Your task to perform on an android device: change keyboard looks Image 0: 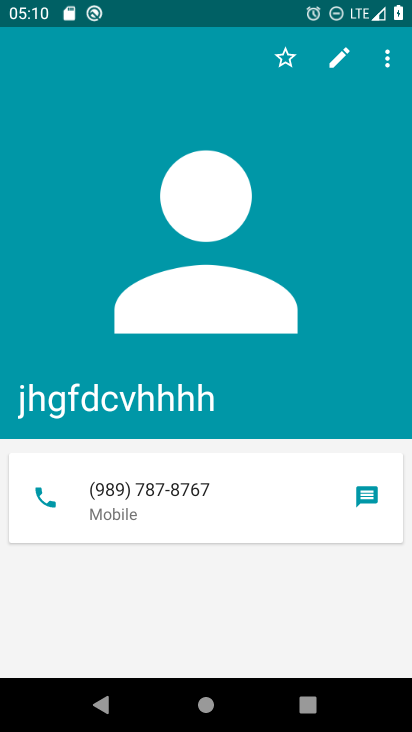
Step 0: press home button
Your task to perform on an android device: change keyboard looks Image 1: 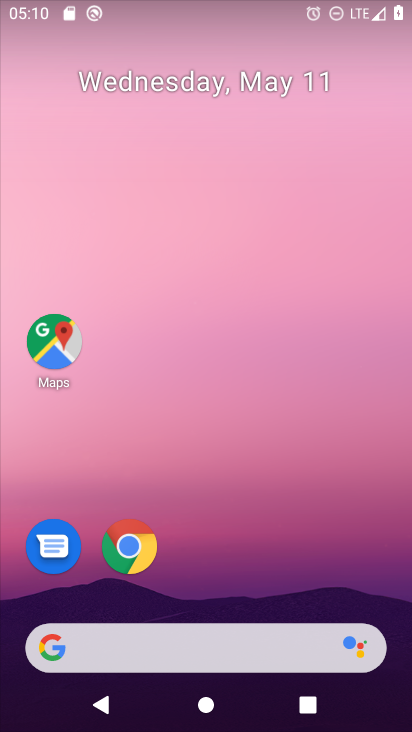
Step 1: drag from (312, 609) to (393, 14)
Your task to perform on an android device: change keyboard looks Image 2: 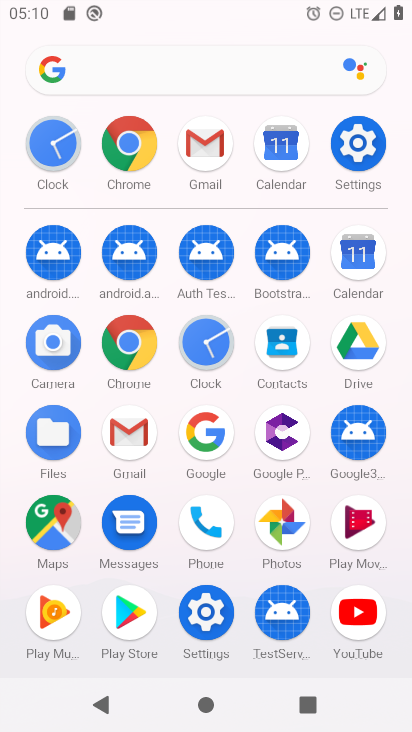
Step 2: click (360, 157)
Your task to perform on an android device: change keyboard looks Image 3: 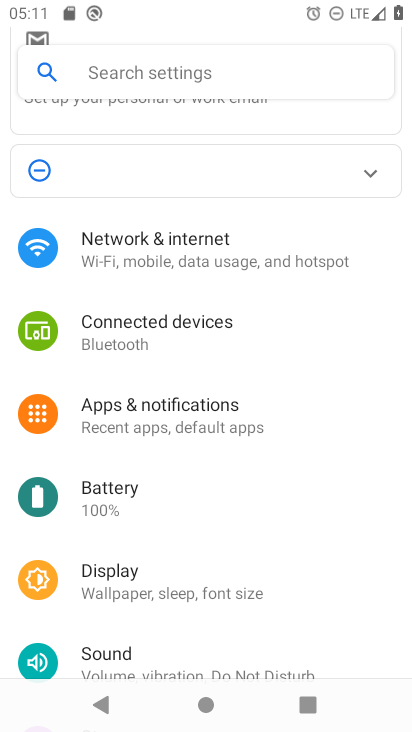
Step 3: drag from (201, 652) to (326, 123)
Your task to perform on an android device: change keyboard looks Image 4: 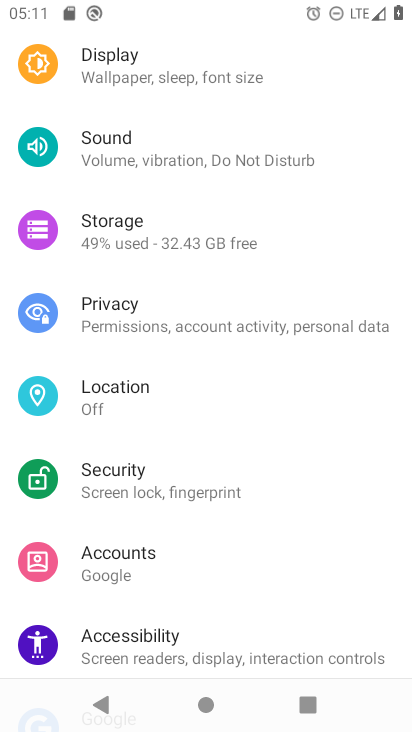
Step 4: drag from (261, 662) to (292, 133)
Your task to perform on an android device: change keyboard looks Image 5: 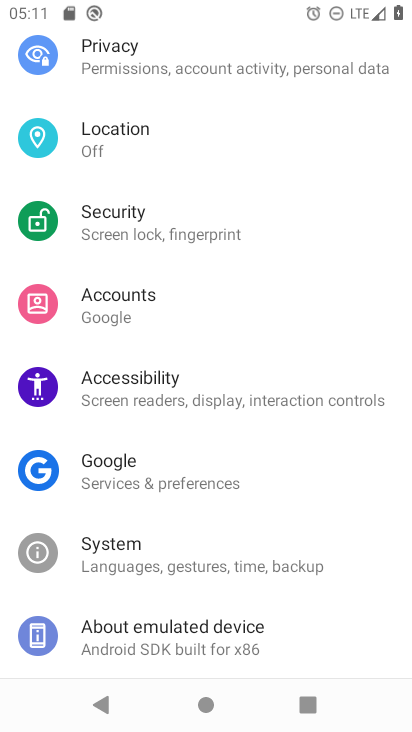
Step 5: click (160, 550)
Your task to perform on an android device: change keyboard looks Image 6: 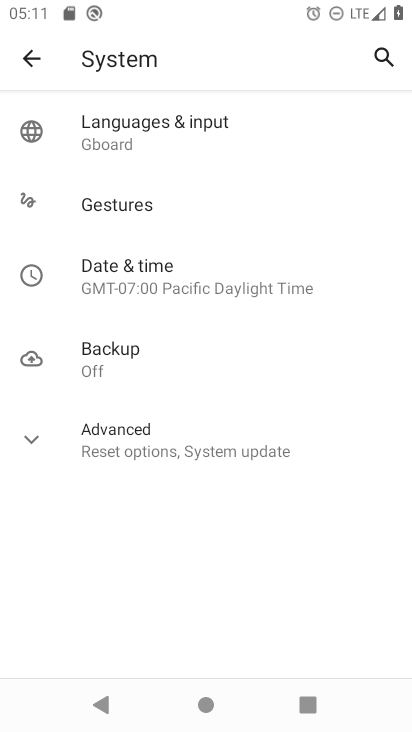
Step 6: click (235, 140)
Your task to perform on an android device: change keyboard looks Image 7: 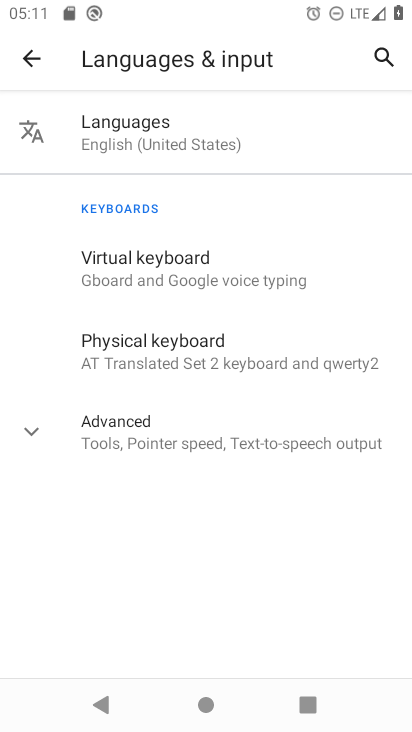
Step 7: click (231, 273)
Your task to perform on an android device: change keyboard looks Image 8: 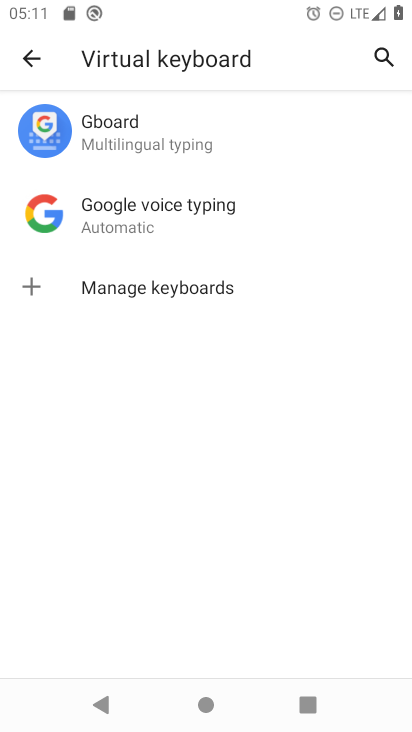
Step 8: click (172, 152)
Your task to perform on an android device: change keyboard looks Image 9: 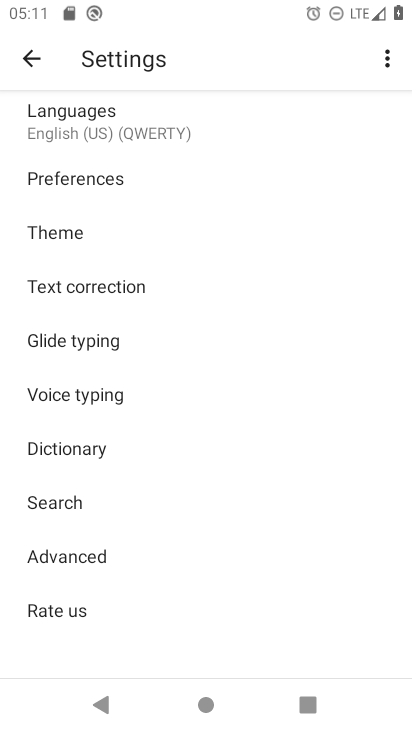
Step 9: click (92, 233)
Your task to perform on an android device: change keyboard looks Image 10: 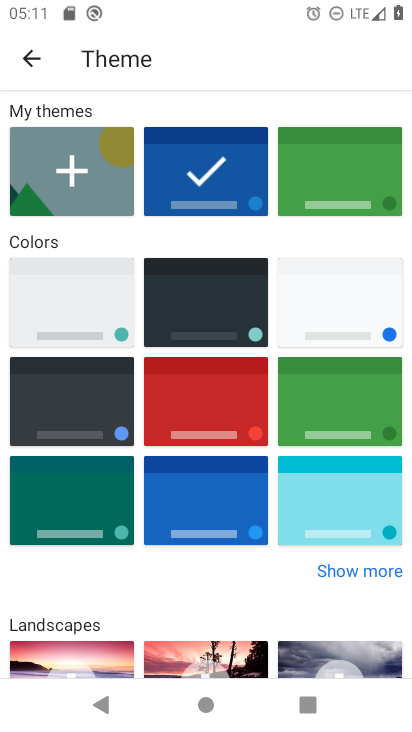
Step 10: click (352, 310)
Your task to perform on an android device: change keyboard looks Image 11: 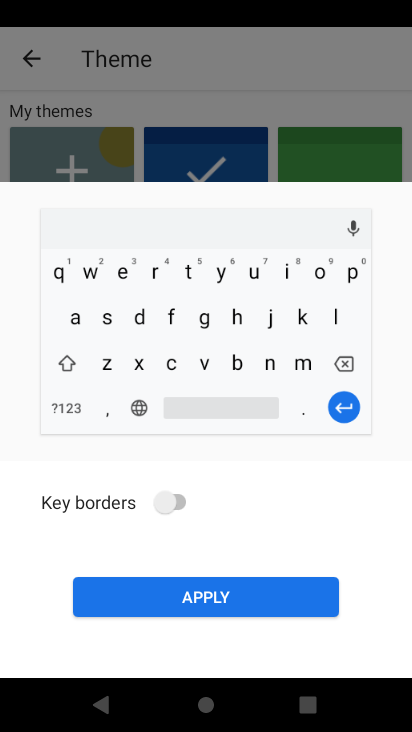
Step 11: click (289, 590)
Your task to perform on an android device: change keyboard looks Image 12: 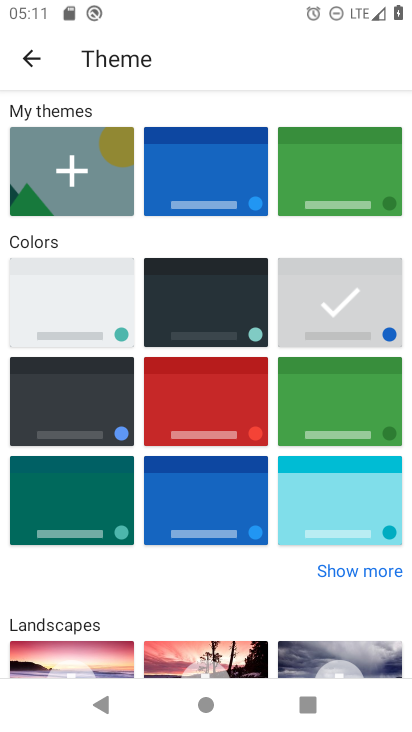
Step 12: task complete